Your task to perform on an android device: read, delete, or share a saved page in the chrome app Image 0: 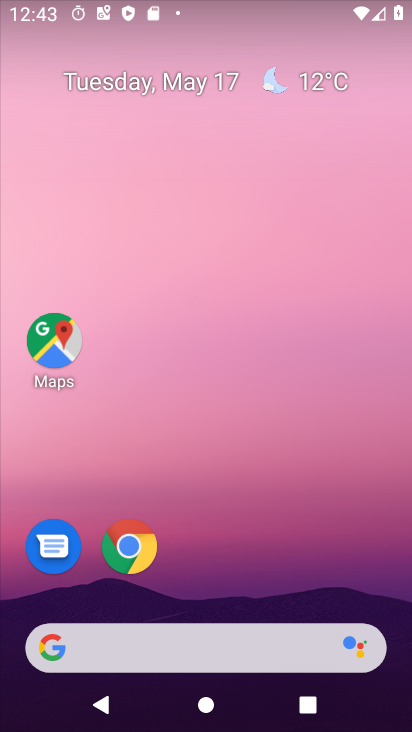
Step 0: click (135, 548)
Your task to perform on an android device: read, delete, or share a saved page in the chrome app Image 1: 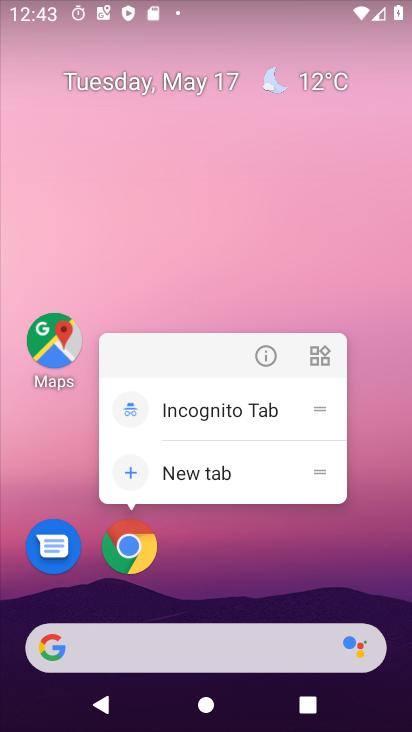
Step 1: click (123, 553)
Your task to perform on an android device: read, delete, or share a saved page in the chrome app Image 2: 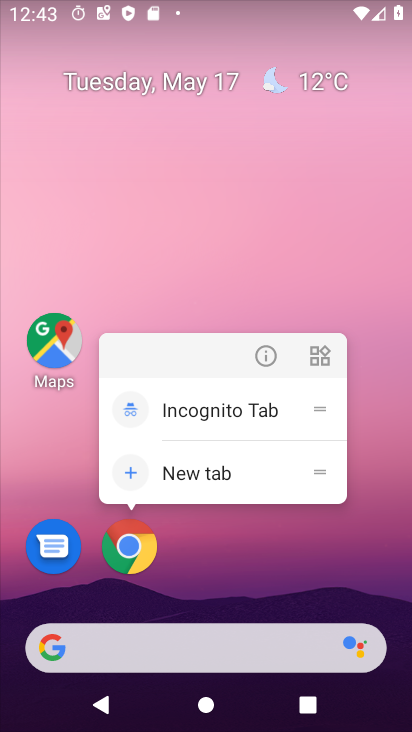
Step 2: click (129, 547)
Your task to perform on an android device: read, delete, or share a saved page in the chrome app Image 3: 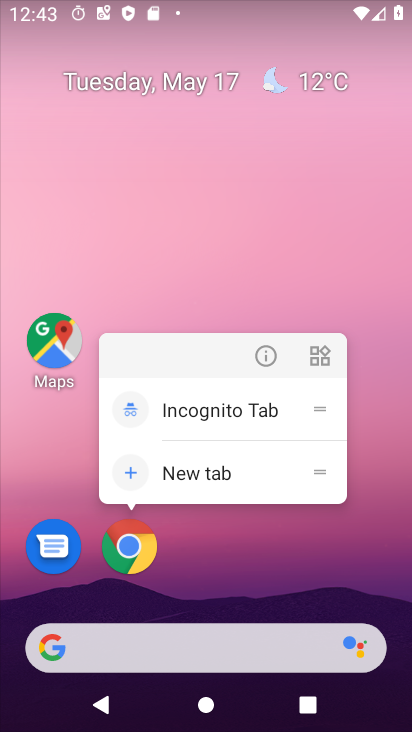
Step 3: click (136, 551)
Your task to perform on an android device: read, delete, or share a saved page in the chrome app Image 4: 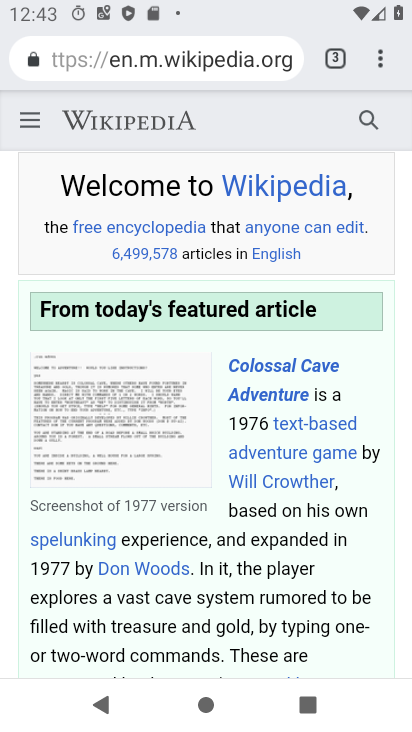
Step 4: drag from (378, 65) to (222, 370)
Your task to perform on an android device: read, delete, or share a saved page in the chrome app Image 5: 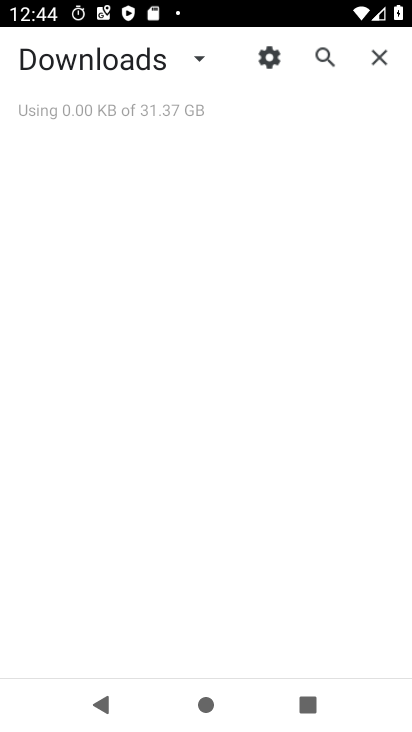
Step 5: click (163, 57)
Your task to perform on an android device: read, delete, or share a saved page in the chrome app Image 6: 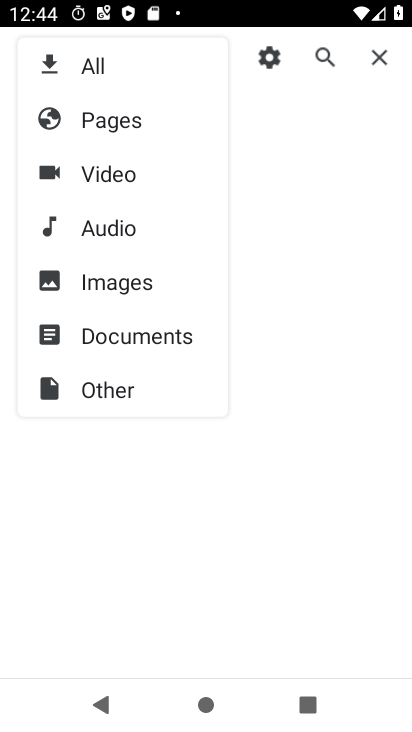
Step 6: click (114, 123)
Your task to perform on an android device: read, delete, or share a saved page in the chrome app Image 7: 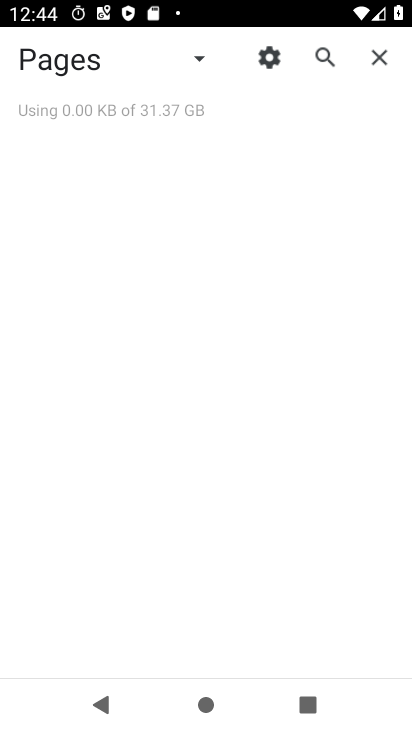
Step 7: task complete